Your task to perform on an android device: Go to Reddit.com Image 0: 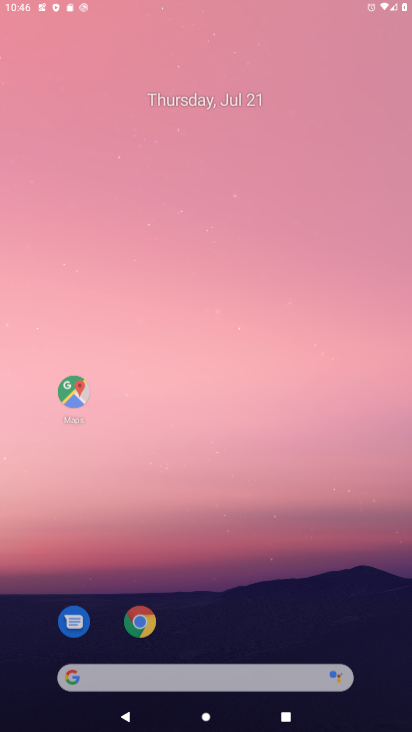
Step 0: click (277, 80)
Your task to perform on an android device: Go to Reddit.com Image 1: 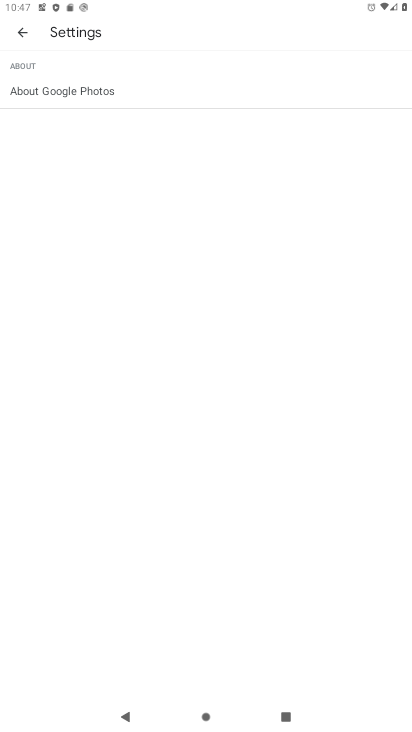
Step 1: press home button
Your task to perform on an android device: Go to Reddit.com Image 2: 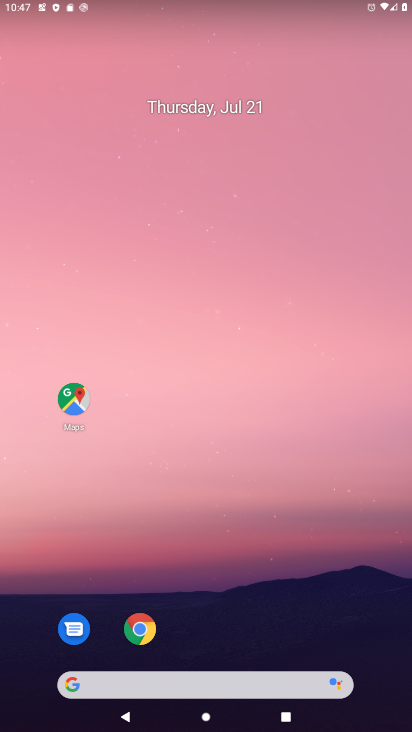
Step 2: click (135, 619)
Your task to perform on an android device: Go to Reddit.com Image 3: 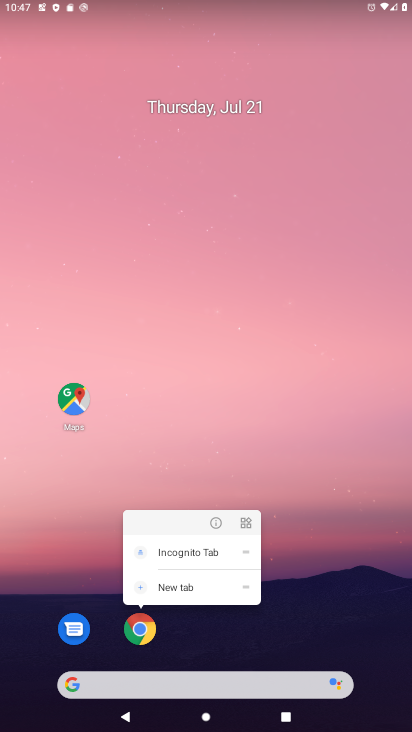
Step 3: click (264, 425)
Your task to perform on an android device: Go to Reddit.com Image 4: 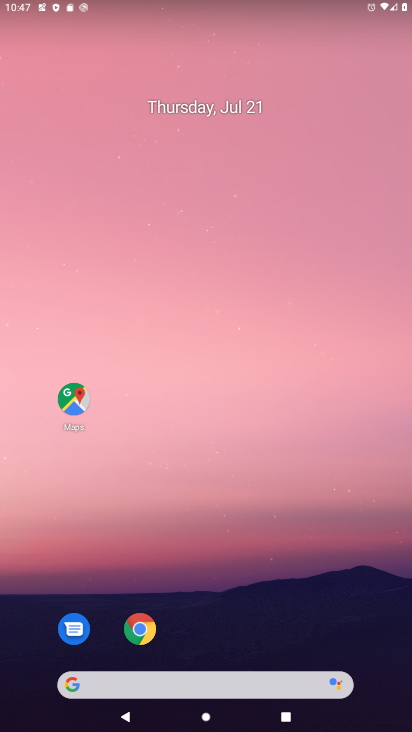
Step 4: drag from (238, 630) to (233, 98)
Your task to perform on an android device: Go to Reddit.com Image 5: 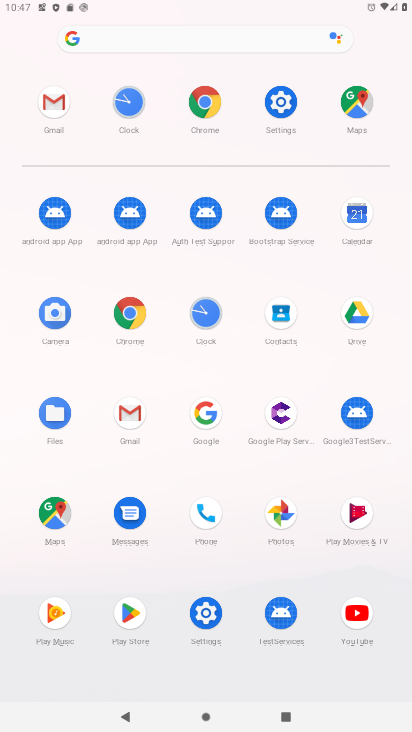
Step 5: click (131, 304)
Your task to perform on an android device: Go to Reddit.com Image 6: 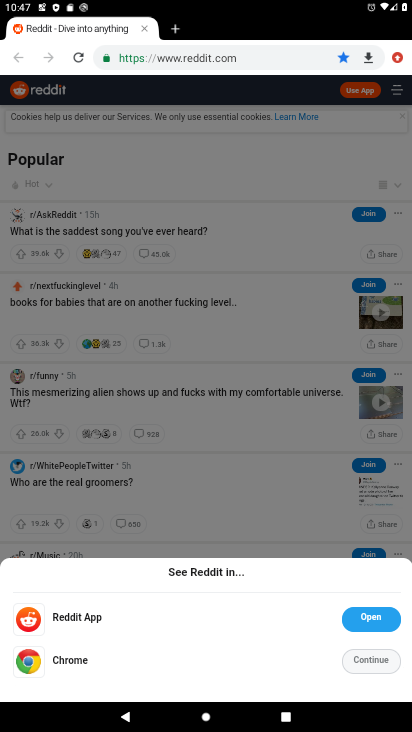
Step 6: click (75, 608)
Your task to perform on an android device: Go to Reddit.com Image 7: 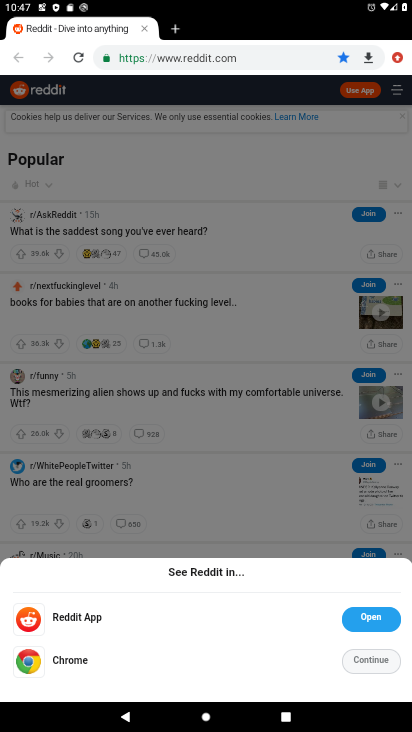
Step 7: click (360, 612)
Your task to perform on an android device: Go to Reddit.com Image 8: 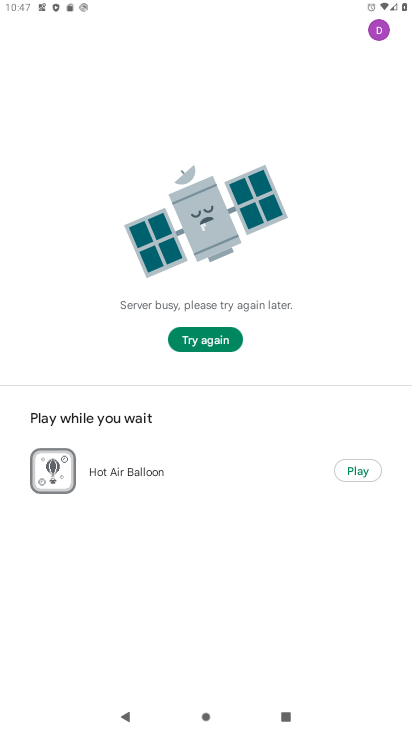
Step 8: task complete